Your task to perform on an android device: Open Google Image 0: 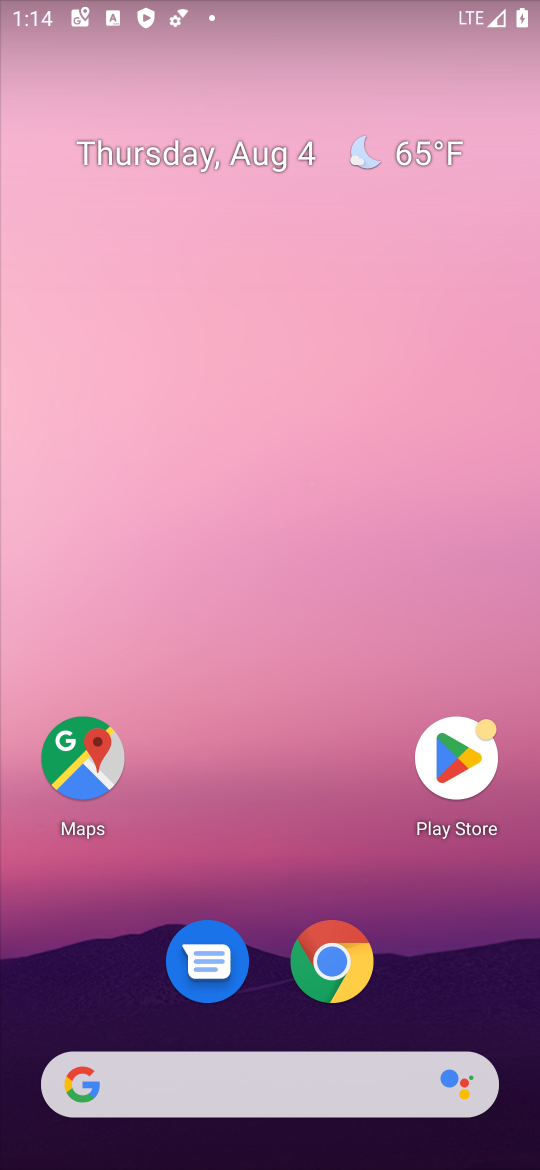
Step 0: click (291, 1099)
Your task to perform on an android device: Open Google Image 1: 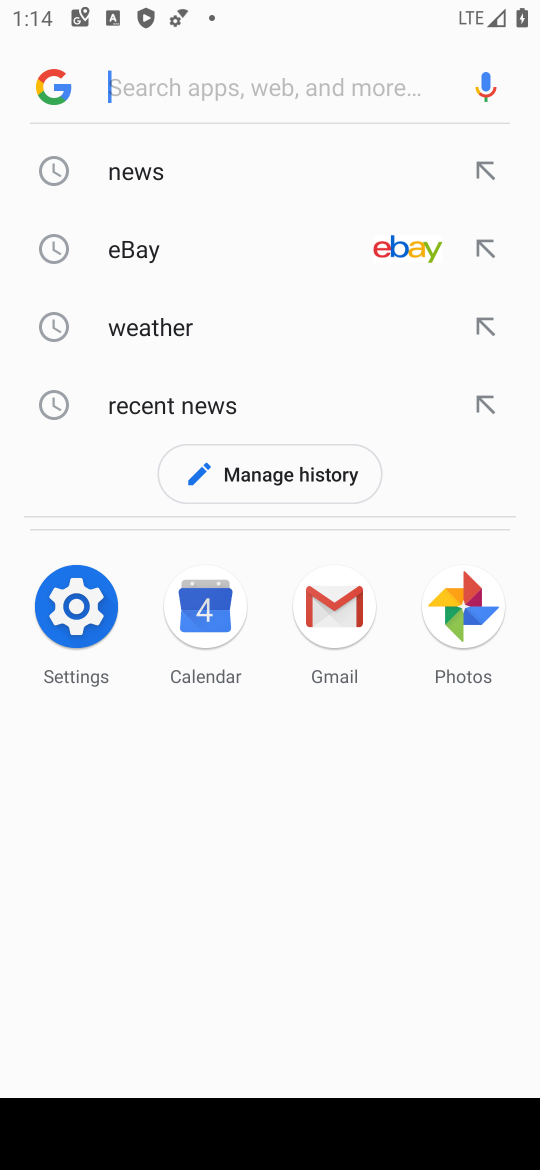
Step 1: click (49, 82)
Your task to perform on an android device: Open Google Image 2: 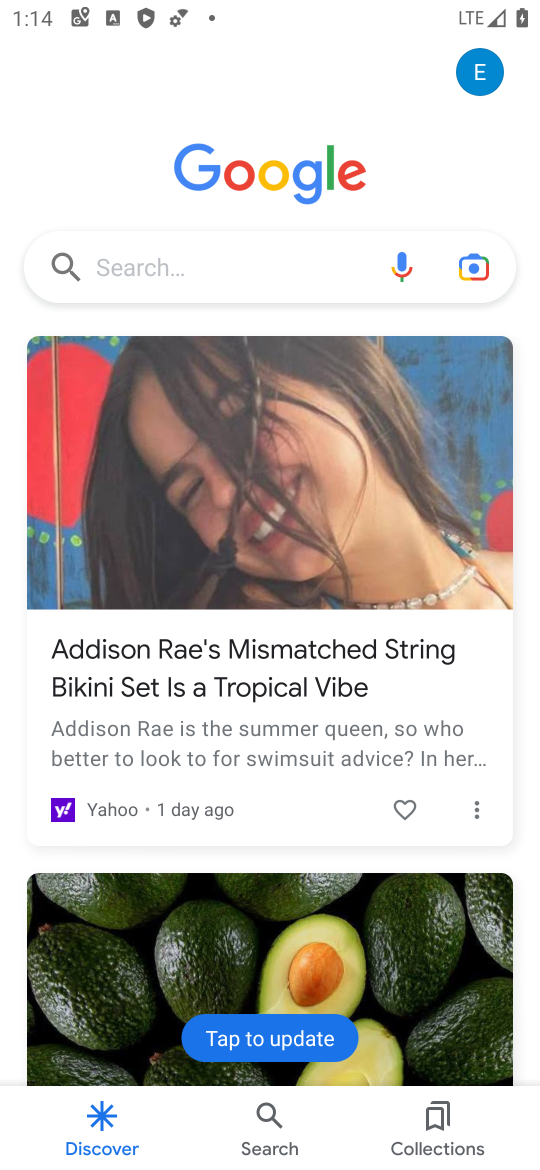
Step 2: task complete